Your task to perform on an android device: What is the news today? Image 0: 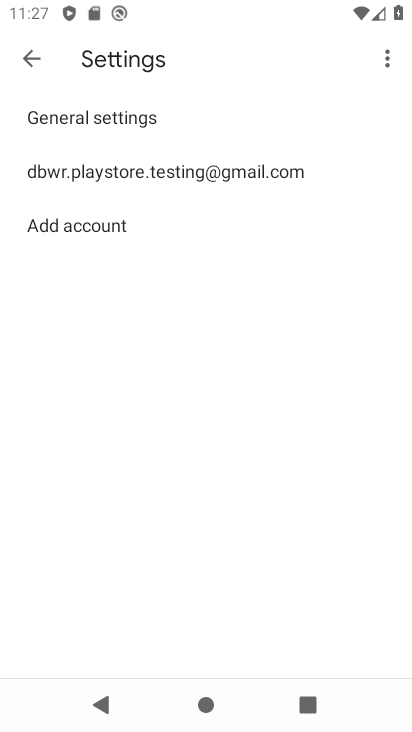
Step 0: press home button
Your task to perform on an android device: What is the news today? Image 1: 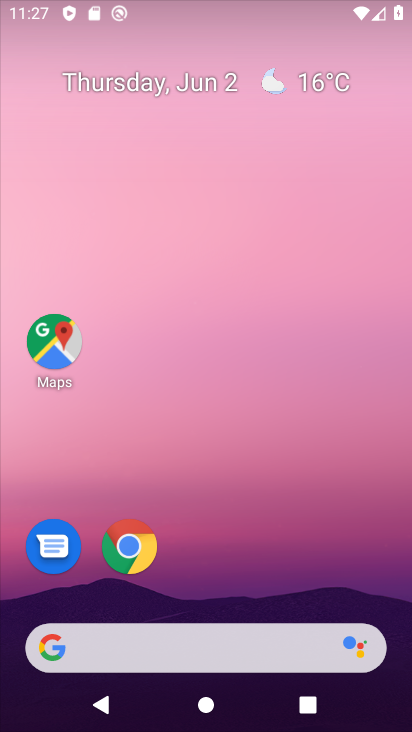
Step 1: drag from (290, 556) to (273, 20)
Your task to perform on an android device: What is the news today? Image 2: 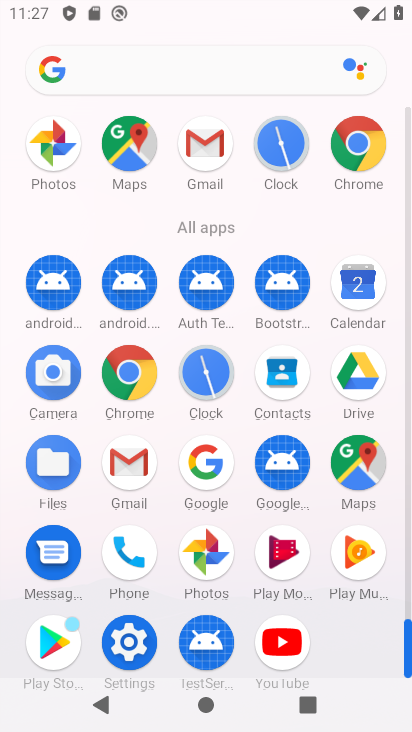
Step 2: click (112, 377)
Your task to perform on an android device: What is the news today? Image 3: 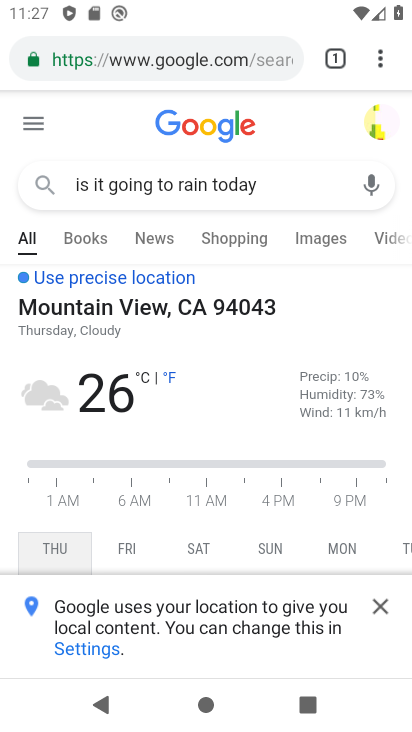
Step 3: click (143, 57)
Your task to perform on an android device: What is the news today? Image 4: 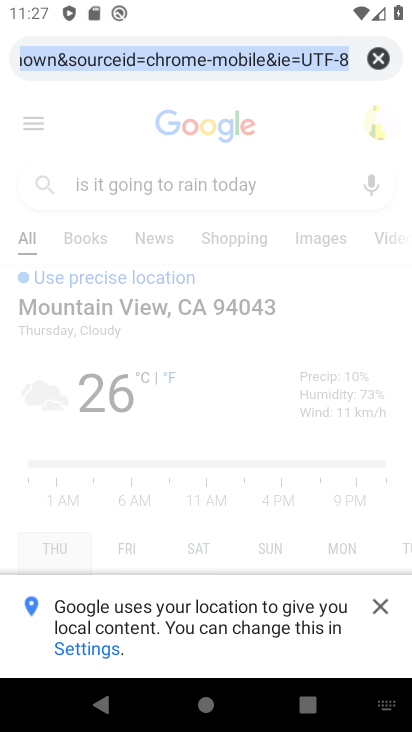
Step 4: click (383, 57)
Your task to perform on an android device: What is the news today? Image 5: 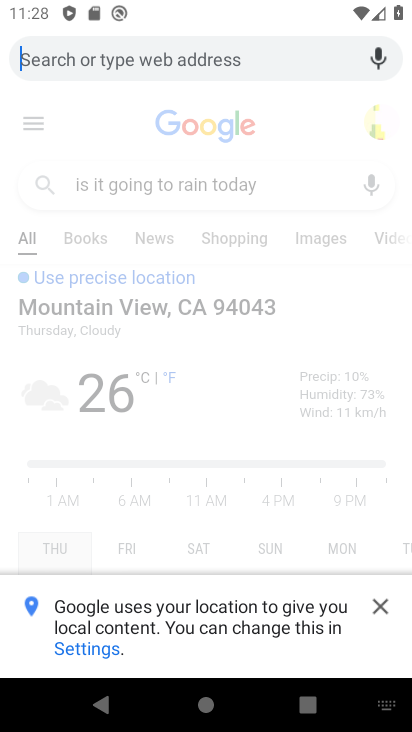
Step 5: type "what's is the news today"
Your task to perform on an android device: What is the news today? Image 6: 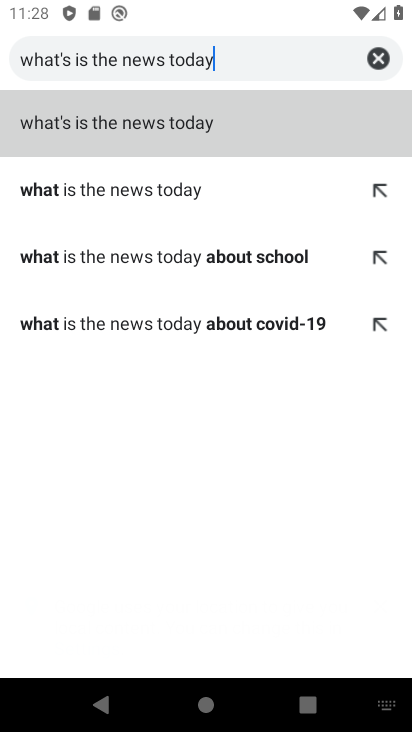
Step 6: click (190, 190)
Your task to perform on an android device: What is the news today? Image 7: 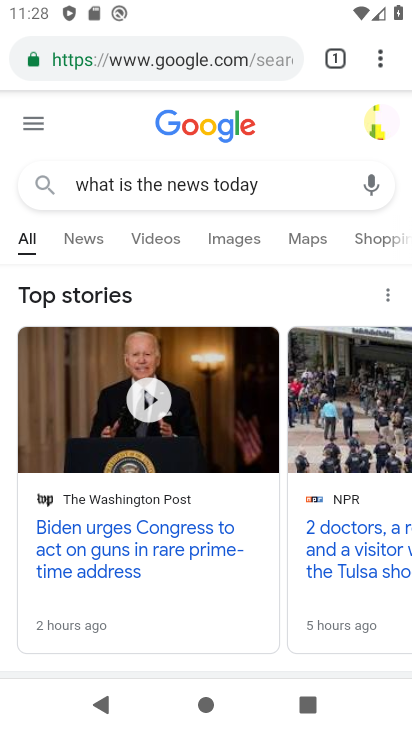
Step 7: task complete